Your task to perform on an android device: Go to Yahoo.com Image 0: 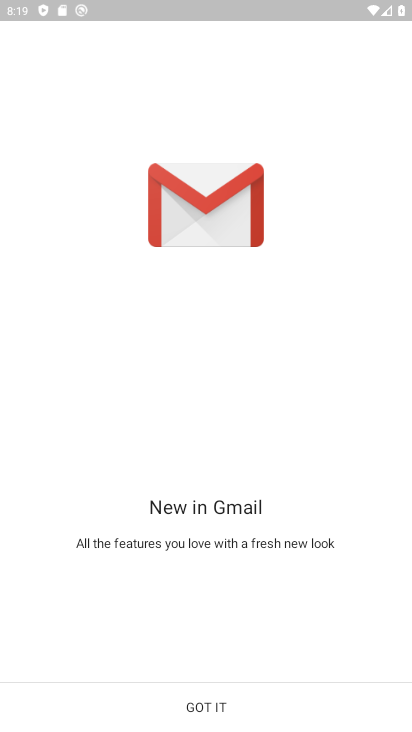
Step 0: press home button
Your task to perform on an android device: Go to Yahoo.com Image 1: 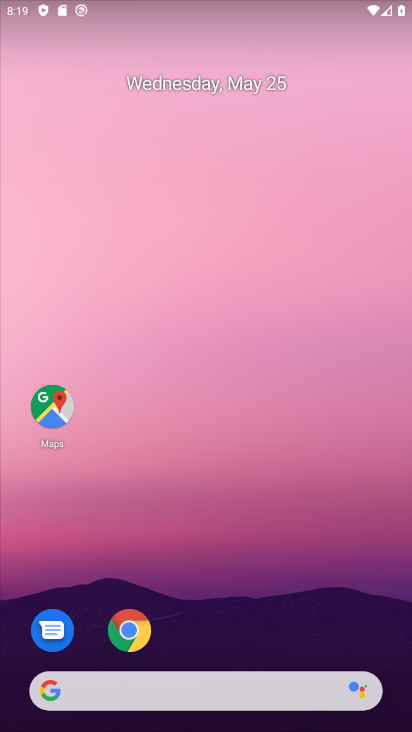
Step 1: click (134, 635)
Your task to perform on an android device: Go to Yahoo.com Image 2: 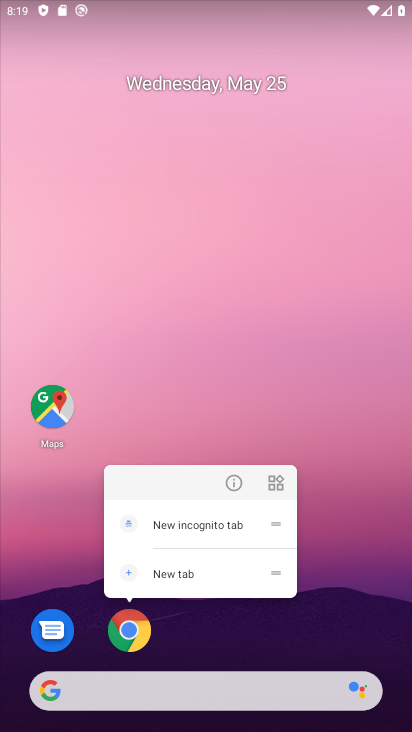
Step 2: click (132, 633)
Your task to perform on an android device: Go to Yahoo.com Image 3: 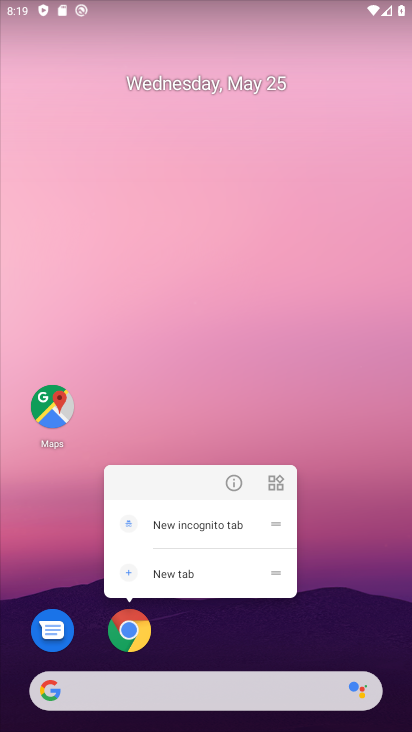
Step 3: click (133, 631)
Your task to perform on an android device: Go to Yahoo.com Image 4: 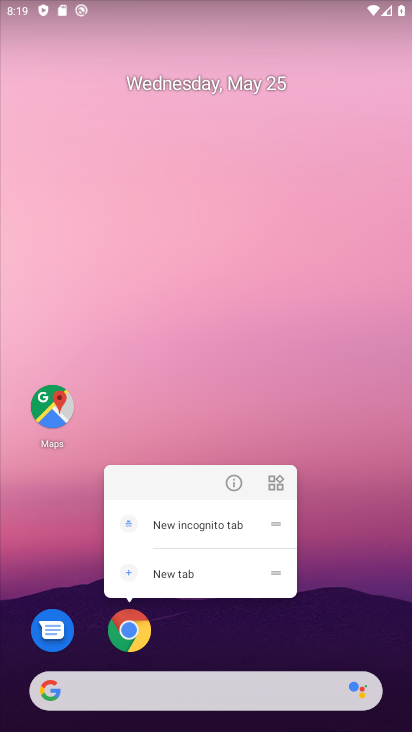
Step 4: click (132, 631)
Your task to perform on an android device: Go to Yahoo.com Image 5: 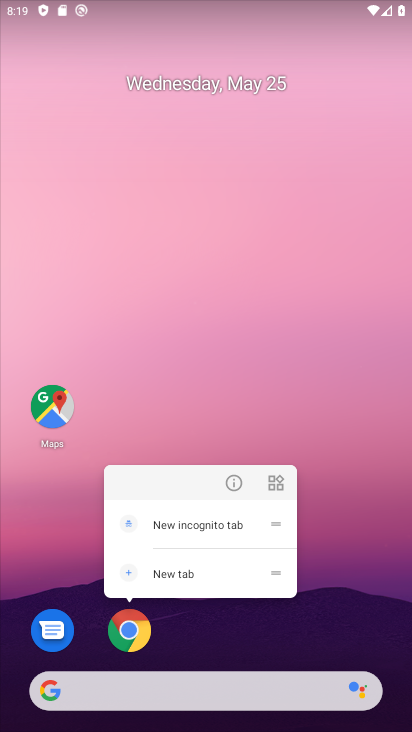
Step 5: click (131, 630)
Your task to perform on an android device: Go to Yahoo.com Image 6: 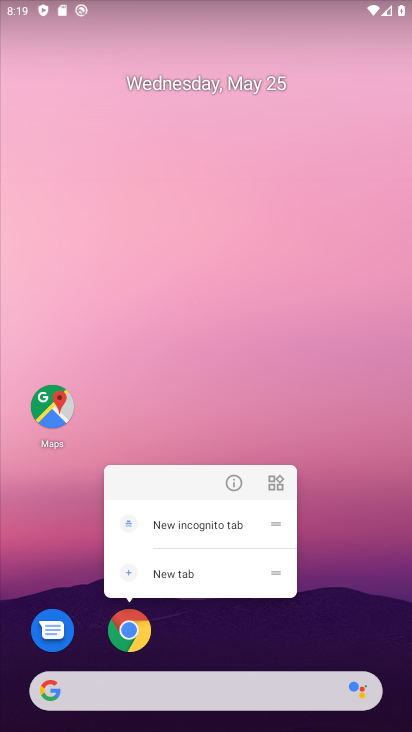
Step 6: click (138, 633)
Your task to perform on an android device: Go to Yahoo.com Image 7: 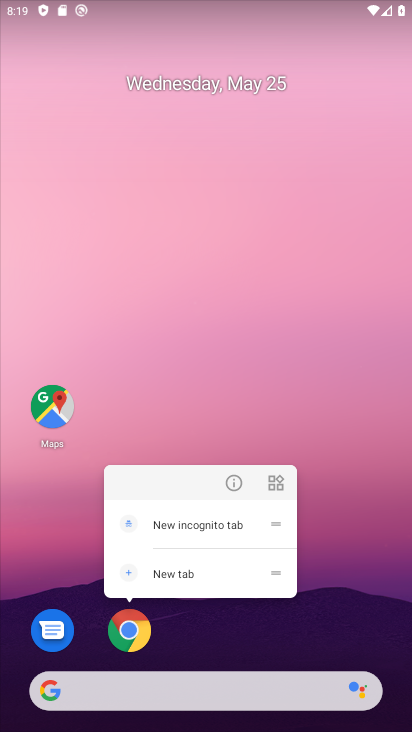
Step 7: click (123, 634)
Your task to perform on an android device: Go to Yahoo.com Image 8: 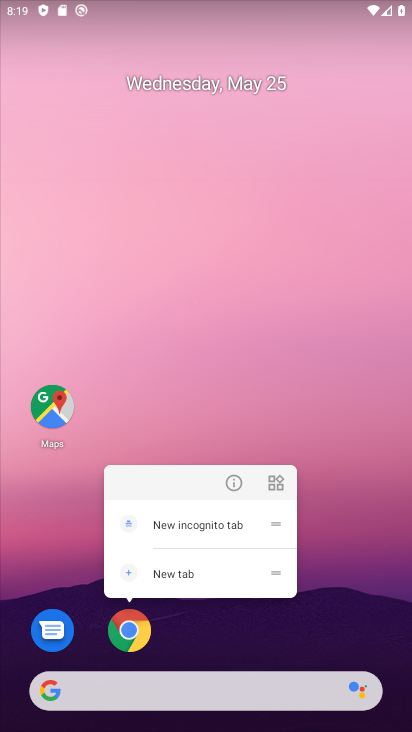
Step 8: click (122, 633)
Your task to perform on an android device: Go to Yahoo.com Image 9: 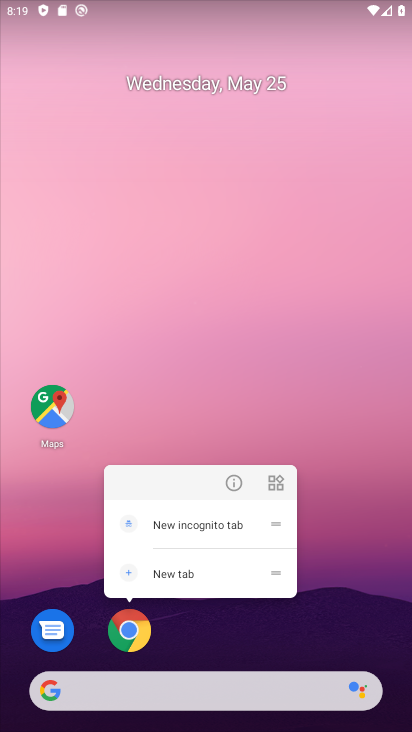
Step 9: click (128, 637)
Your task to perform on an android device: Go to Yahoo.com Image 10: 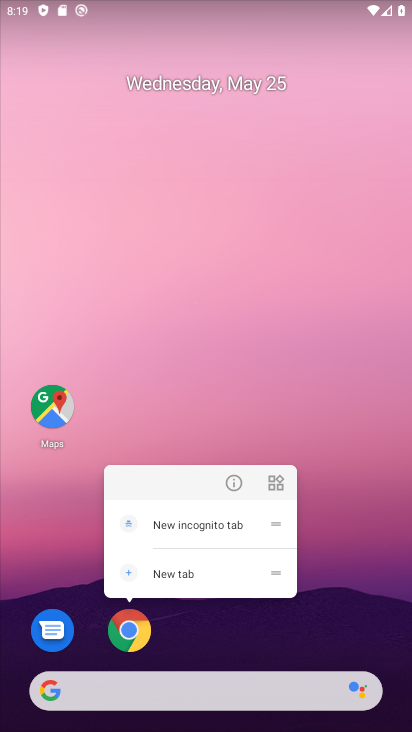
Step 10: click (131, 639)
Your task to perform on an android device: Go to Yahoo.com Image 11: 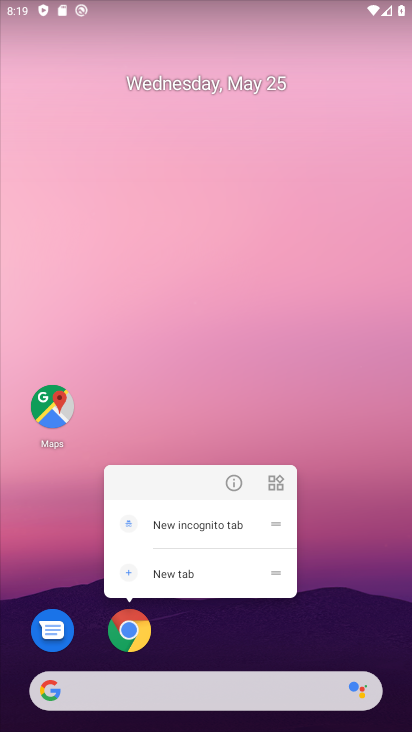
Step 11: click (134, 640)
Your task to perform on an android device: Go to Yahoo.com Image 12: 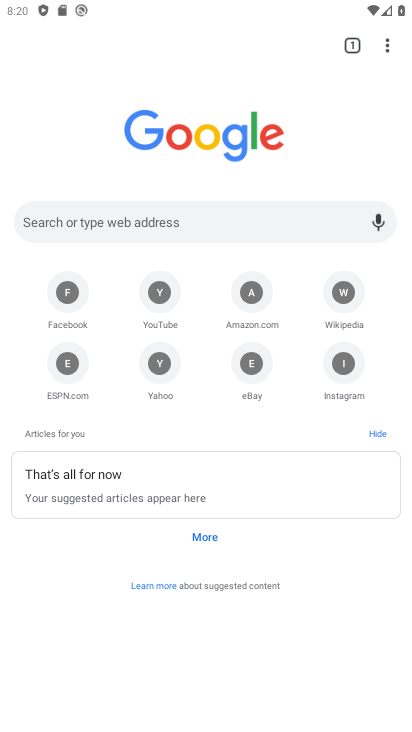
Step 12: click (134, 640)
Your task to perform on an android device: Go to Yahoo.com Image 13: 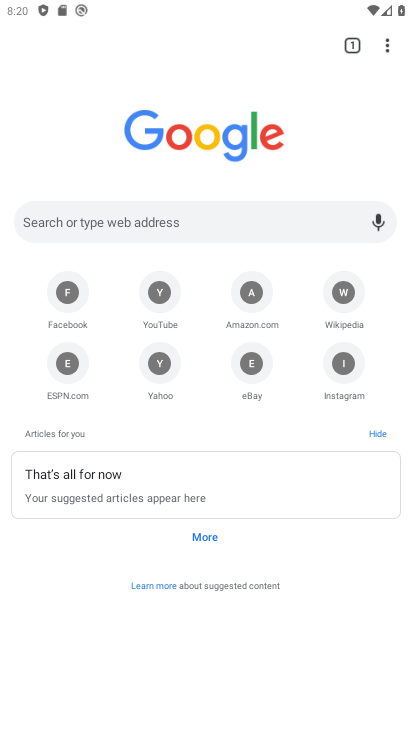
Step 13: drag from (164, 304) to (118, 548)
Your task to perform on an android device: Go to Yahoo.com Image 14: 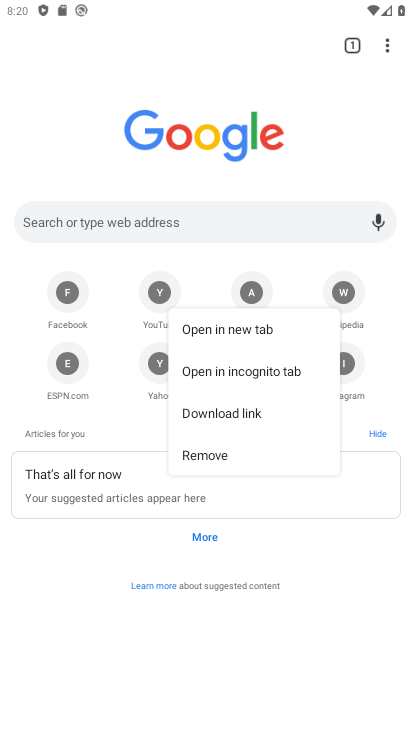
Step 14: click (99, 592)
Your task to perform on an android device: Go to Yahoo.com Image 15: 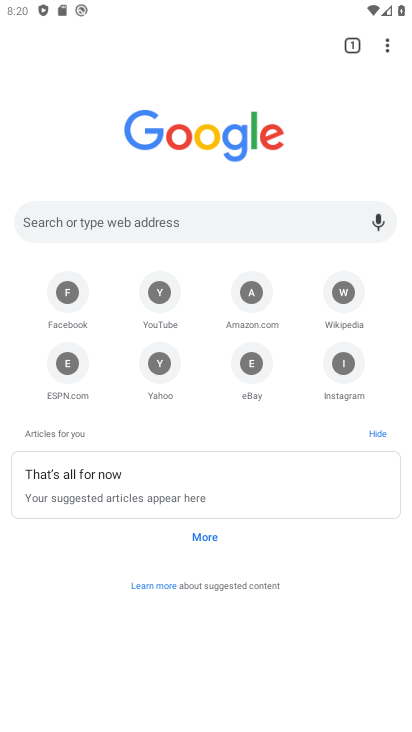
Step 15: click (172, 359)
Your task to perform on an android device: Go to Yahoo.com Image 16: 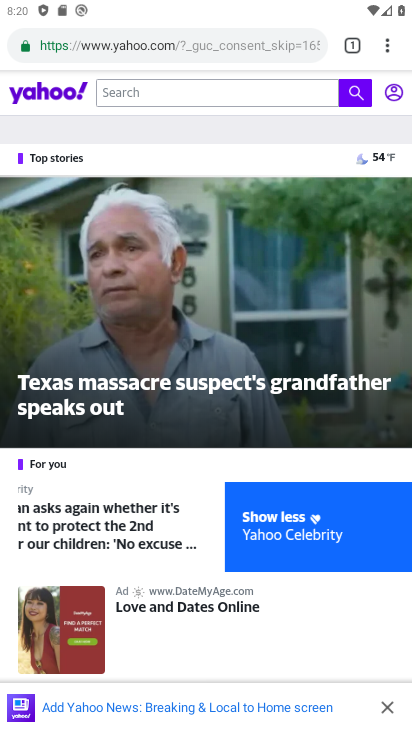
Step 16: task complete